Your task to perform on an android device: toggle airplane mode Image 0: 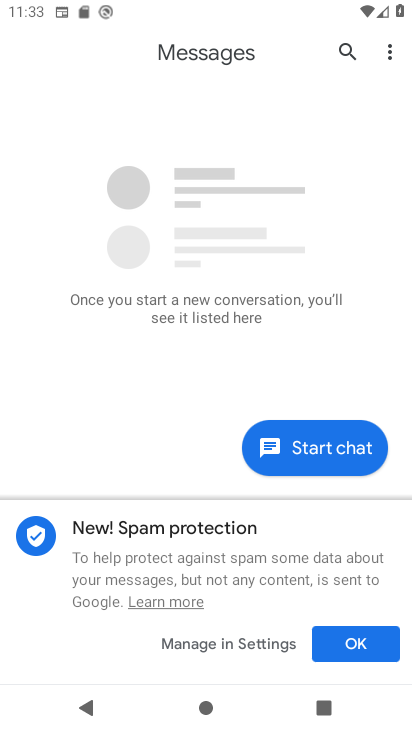
Step 0: drag from (182, 5) to (15, 427)
Your task to perform on an android device: toggle airplane mode Image 1: 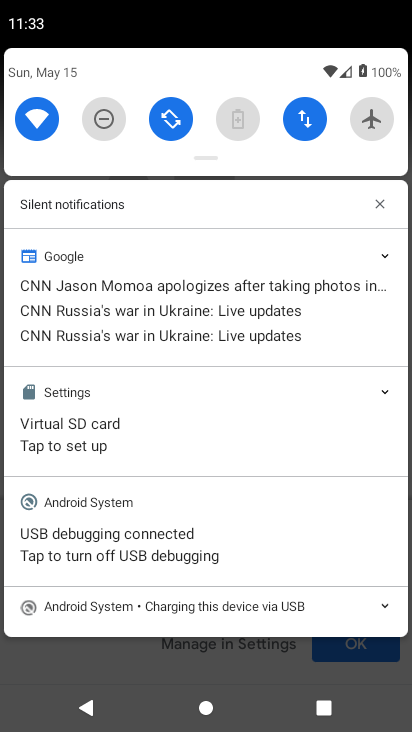
Step 1: click (369, 130)
Your task to perform on an android device: toggle airplane mode Image 2: 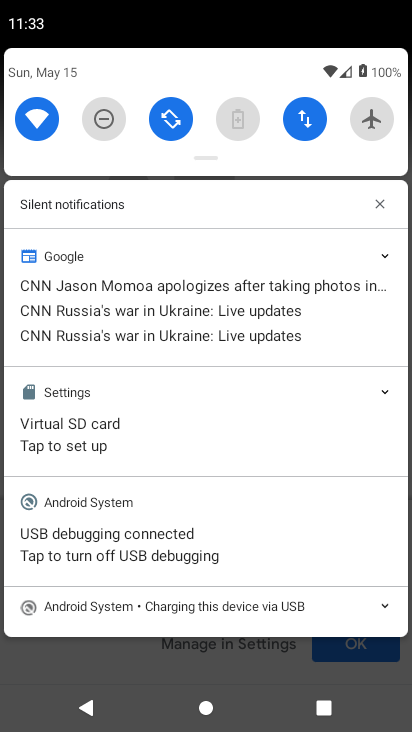
Step 2: click (369, 130)
Your task to perform on an android device: toggle airplane mode Image 3: 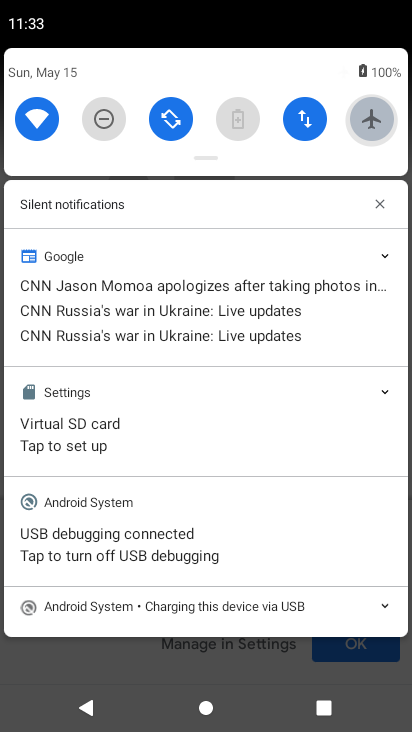
Step 3: click (369, 130)
Your task to perform on an android device: toggle airplane mode Image 4: 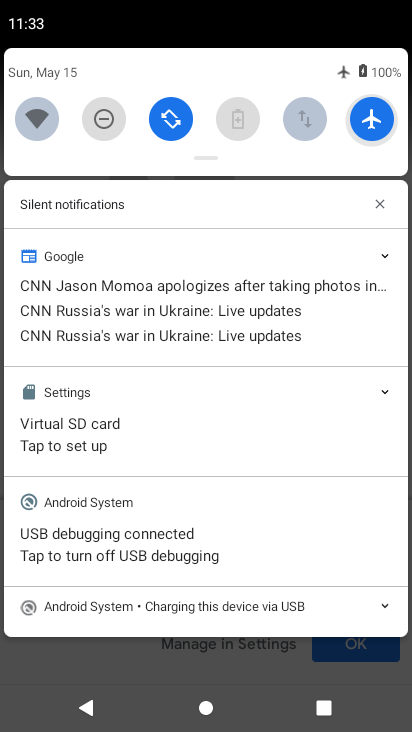
Step 4: click (369, 130)
Your task to perform on an android device: toggle airplane mode Image 5: 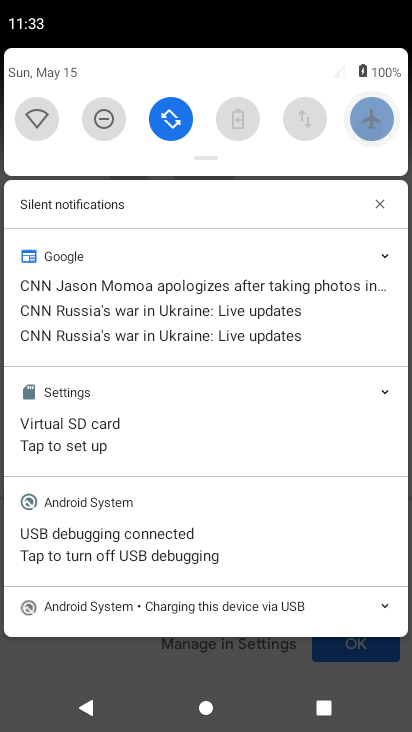
Step 5: click (369, 130)
Your task to perform on an android device: toggle airplane mode Image 6: 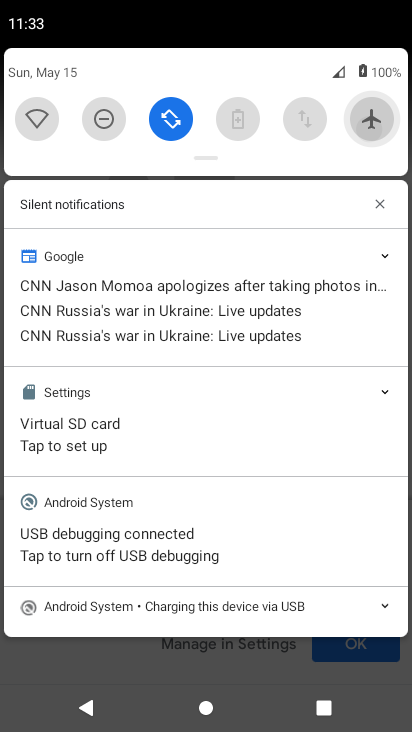
Step 6: click (369, 130)
Your task to perform on an android device: toggle airplane mode Image 7: 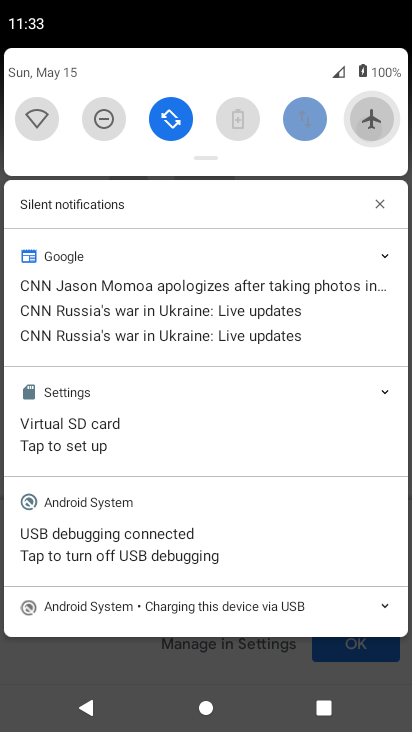
Step 7: click (369, 130)
Your task to perform on an android device: toggle airplane mode Image 8: 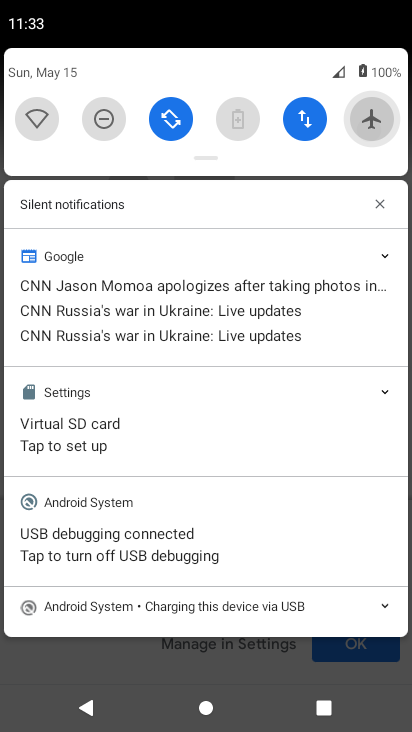
Step 8: click (369, 130)
Your task to perform on an android device: toggle airplane mode Image 9: 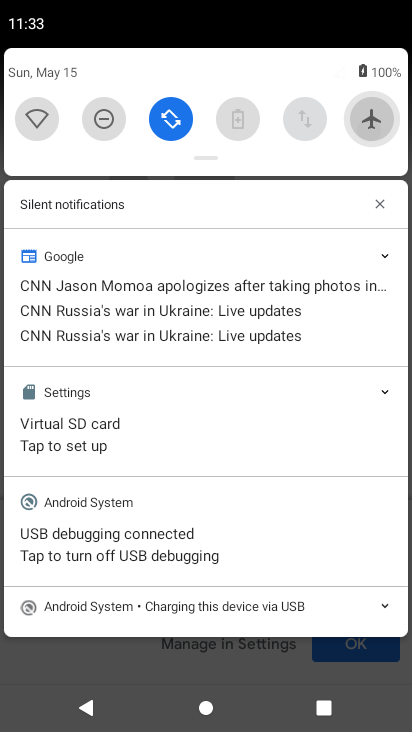
Step 9: click (369, 130)
Your task to perform on an android device: toggle airplane mode Image 10: 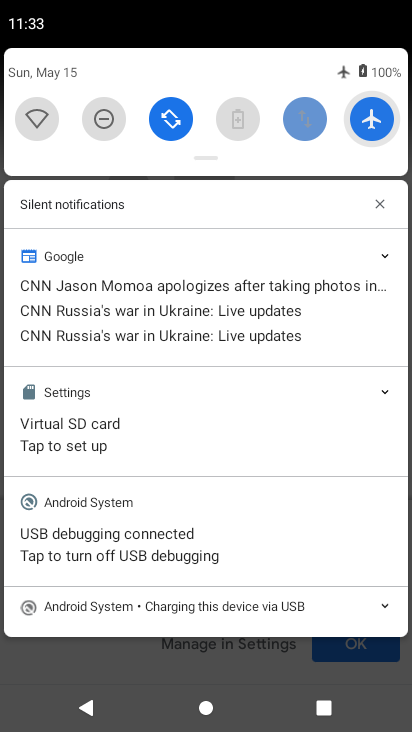
Step 10: click (369, 130)
Your task to perform on an android device: toggle airplane mode Image 11: 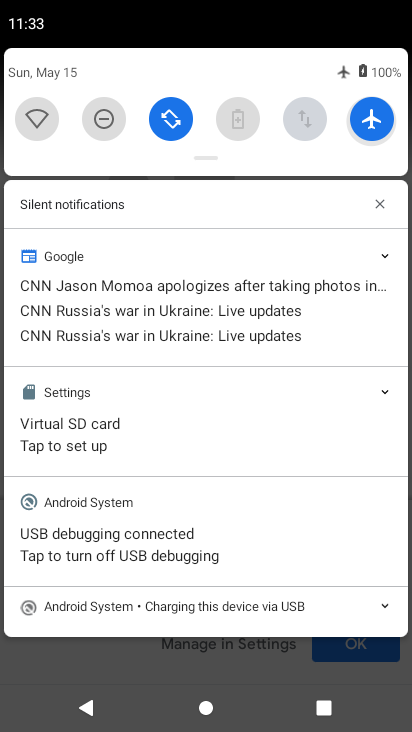
Step 11: click (369, 130)
Your task to perform on an android device: toggle airplane mode Image 12: 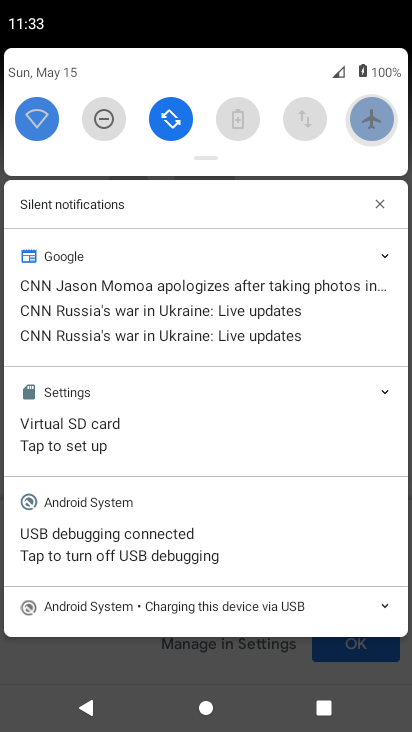
Step 12: click (369, 130)
Your task to perform on an android device: toggle airplane mode Image 13: 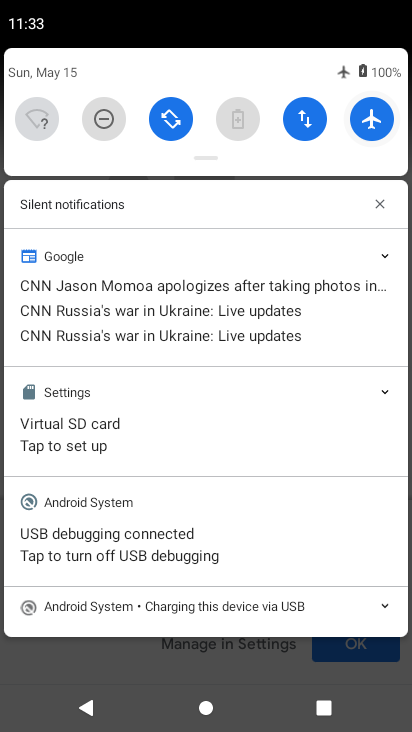
Step 13: click (369, 130)
Your task to perform on an android device: toggle airplane mode Image 14: 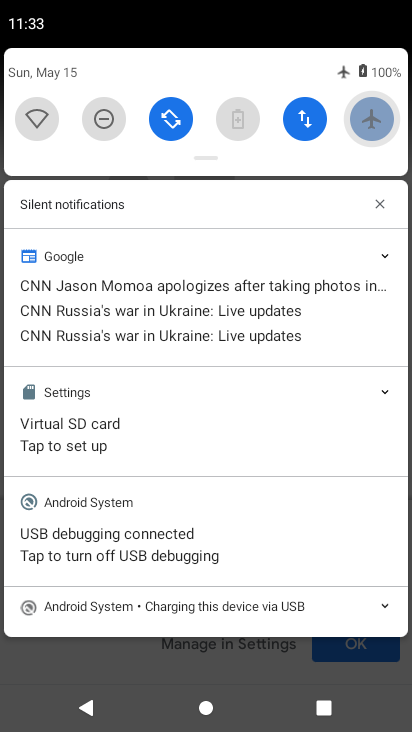
Step 14: click (369, 130)
Your task to perform on an android device: toggle airplane mode Image 15: 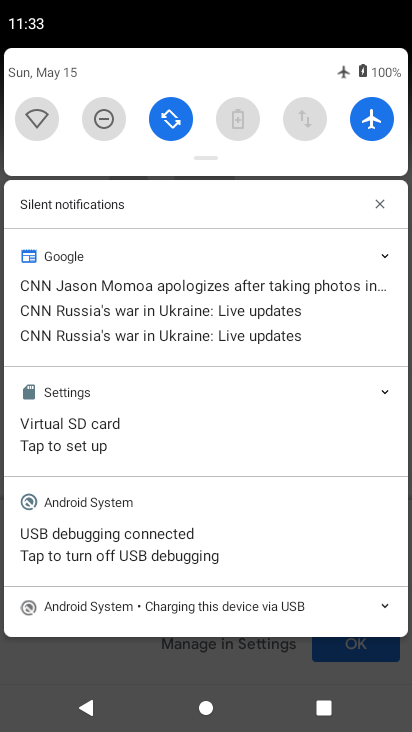
Step 15: click (369, 130)
Your task to perform on an android device: toggle airplane mode Image 16: 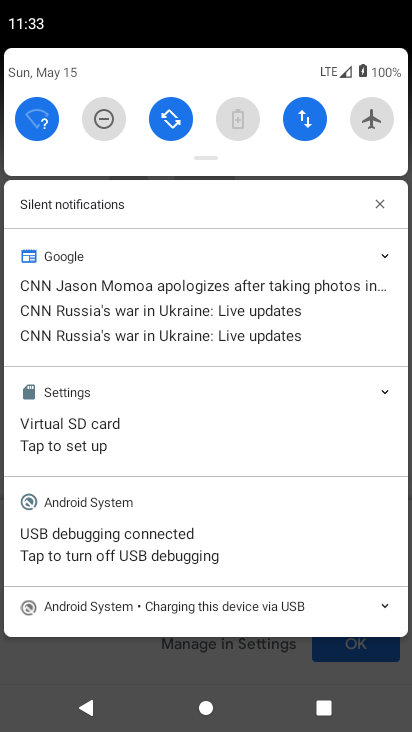
Step 16: task complete